Your task to perform on an android device: open app "Lyft - Rideshare, Bikes, Scooters & Transit" (install if not already installed) Image 0: 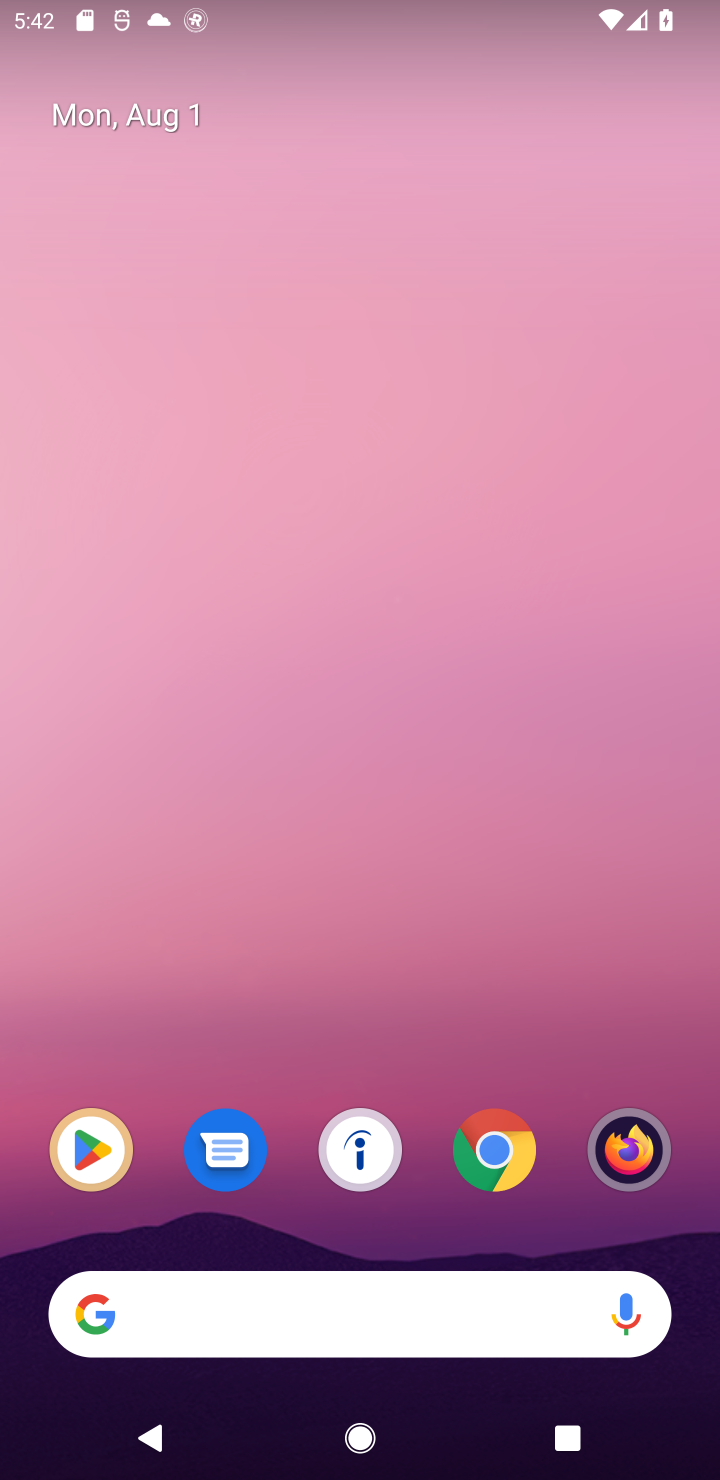
Step 0: drag from (142, 957) to (153, 214)
Your task to perform on an android device: open app "Lyft - Rideshare, Bikes, Scooters & Transit" (install if not already installed) Image 1: 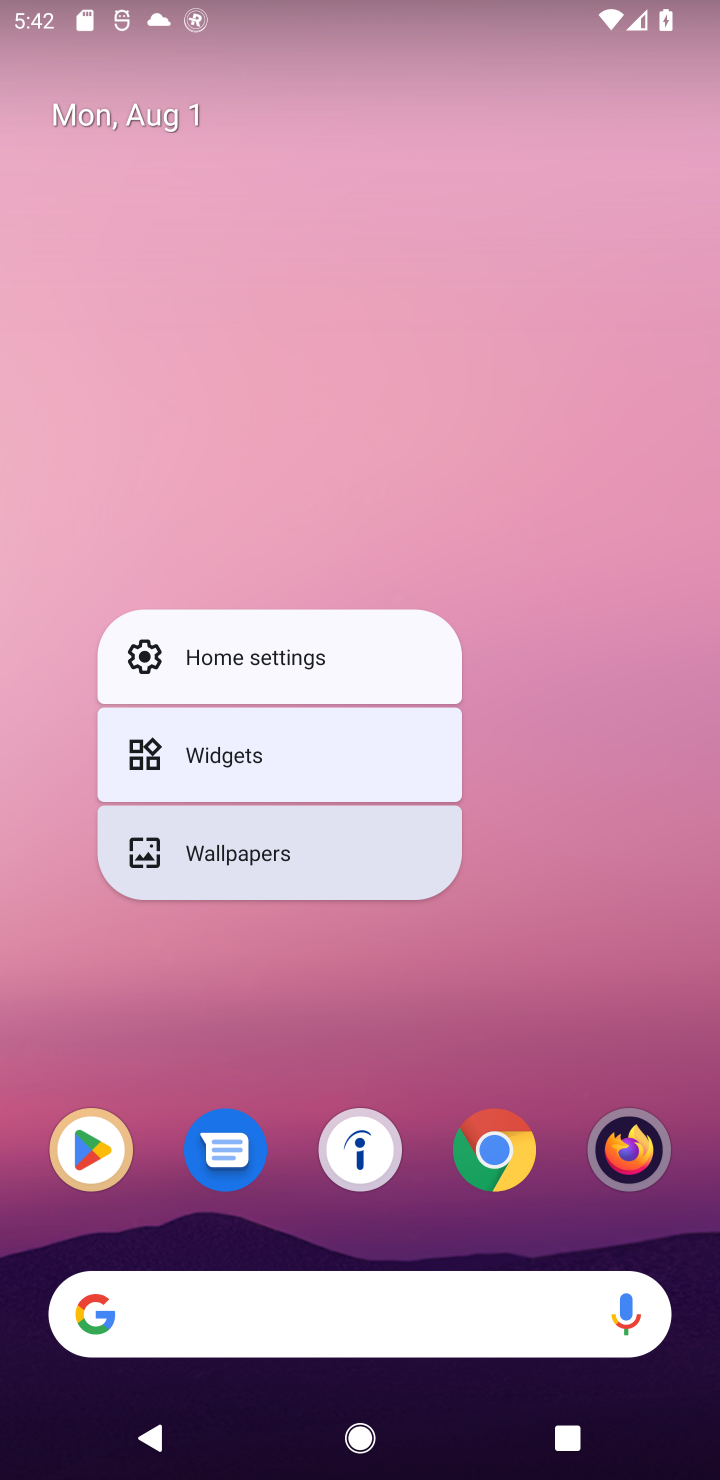
Step 1: click (279, 1247)
Your task to perform on an android device: open app "Lyft - Rideshare, Bikes, Scooters & Transit" (install if not already installed) Image 2: 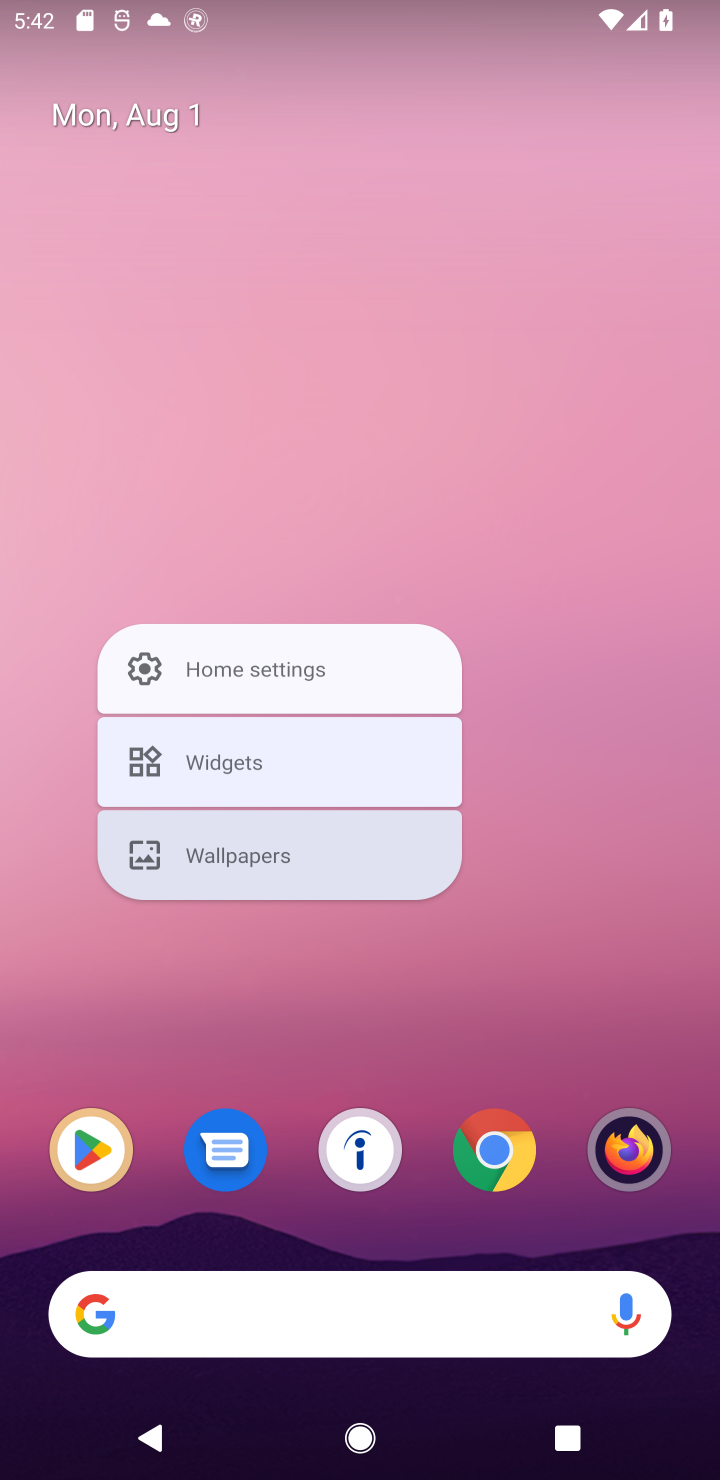
Step 2: click (610, 975)
Your task to perform on an android device: open app "Lyft - Rideshare, Bikes, Scooters & Transit" (install if not already installed) Image 3: 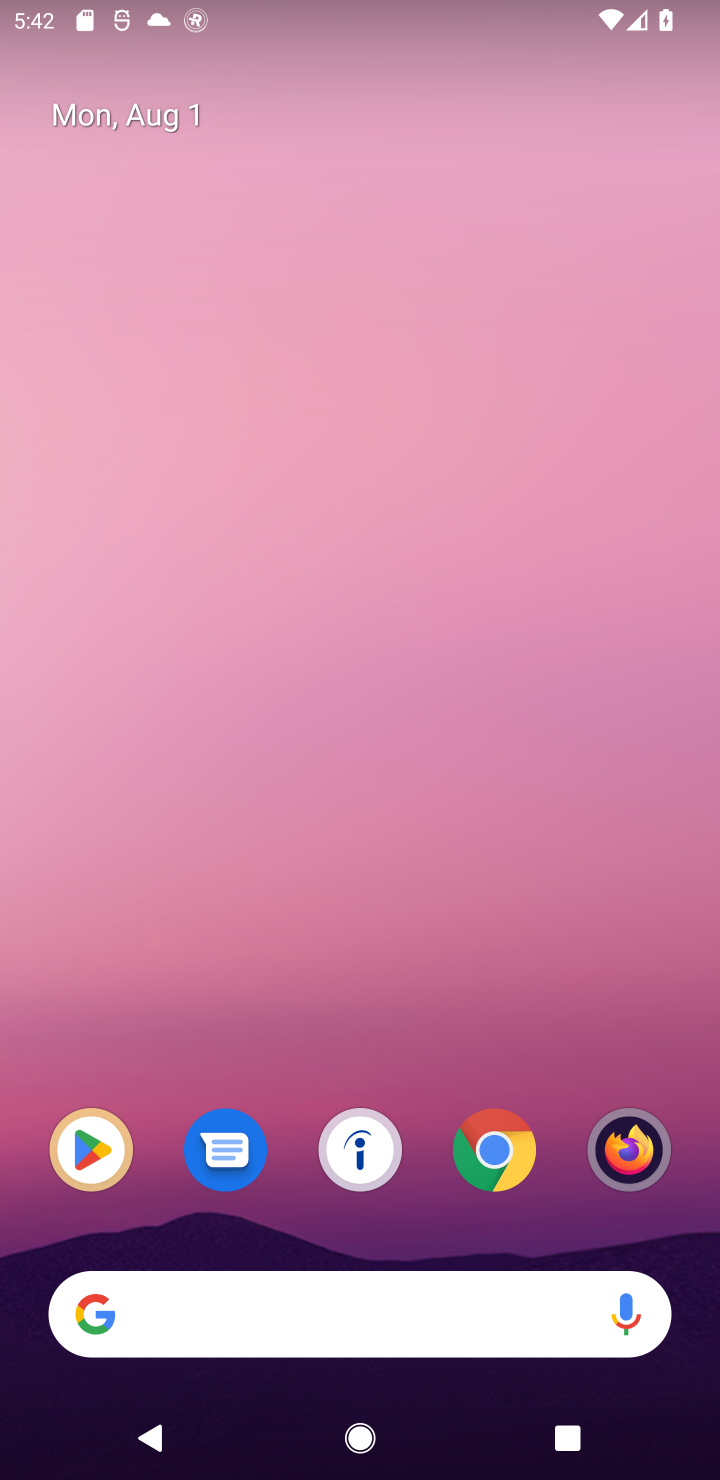
Step 3: drag from (240, 912) to (199, 35)
Your task to perform on an android device: open app "Lyft - Rideshare, Bikes, Scooters & Transit" (install if not already installed) Image 4: 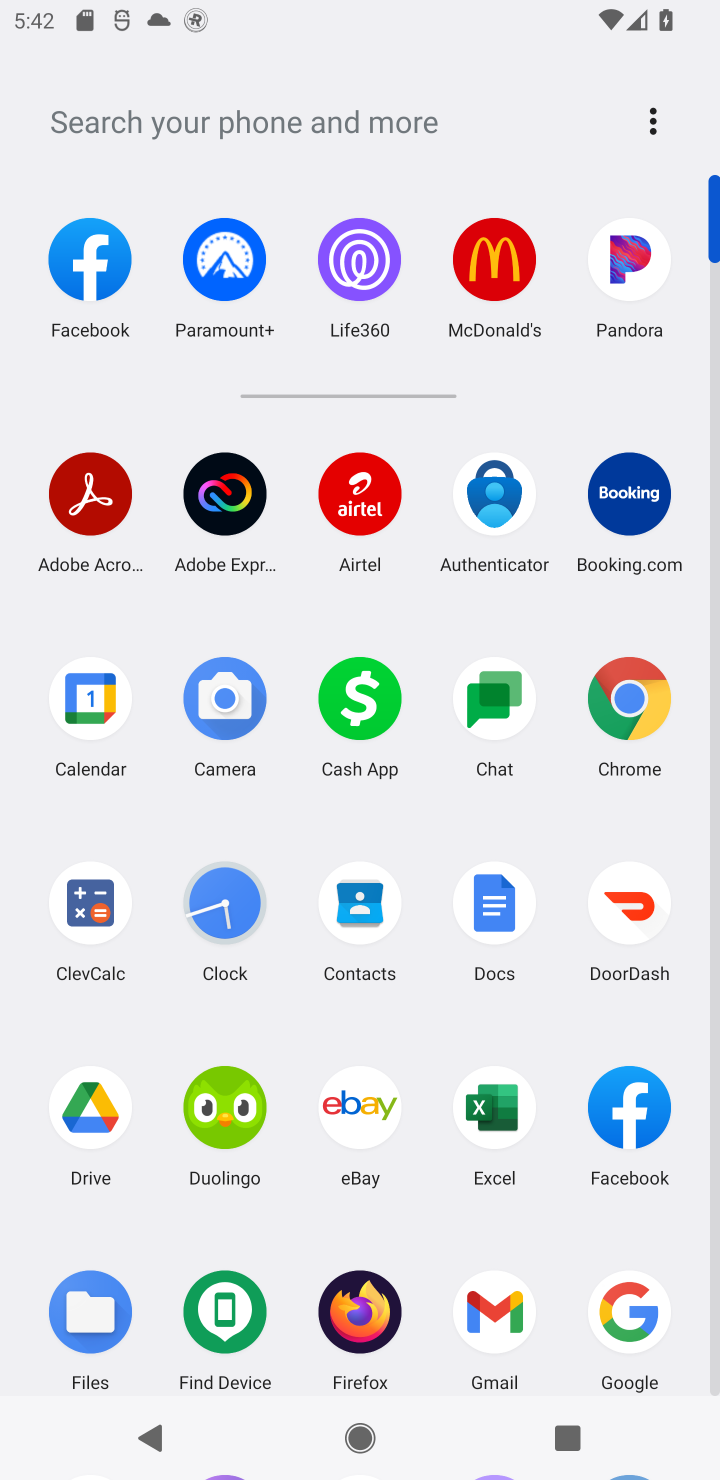
Step 4: click (268, 141)
Your task to perform on an android device: open app "Lyft - Rideshare, Bikes, Scooters & Transit" (install if not already installed) Image 5: 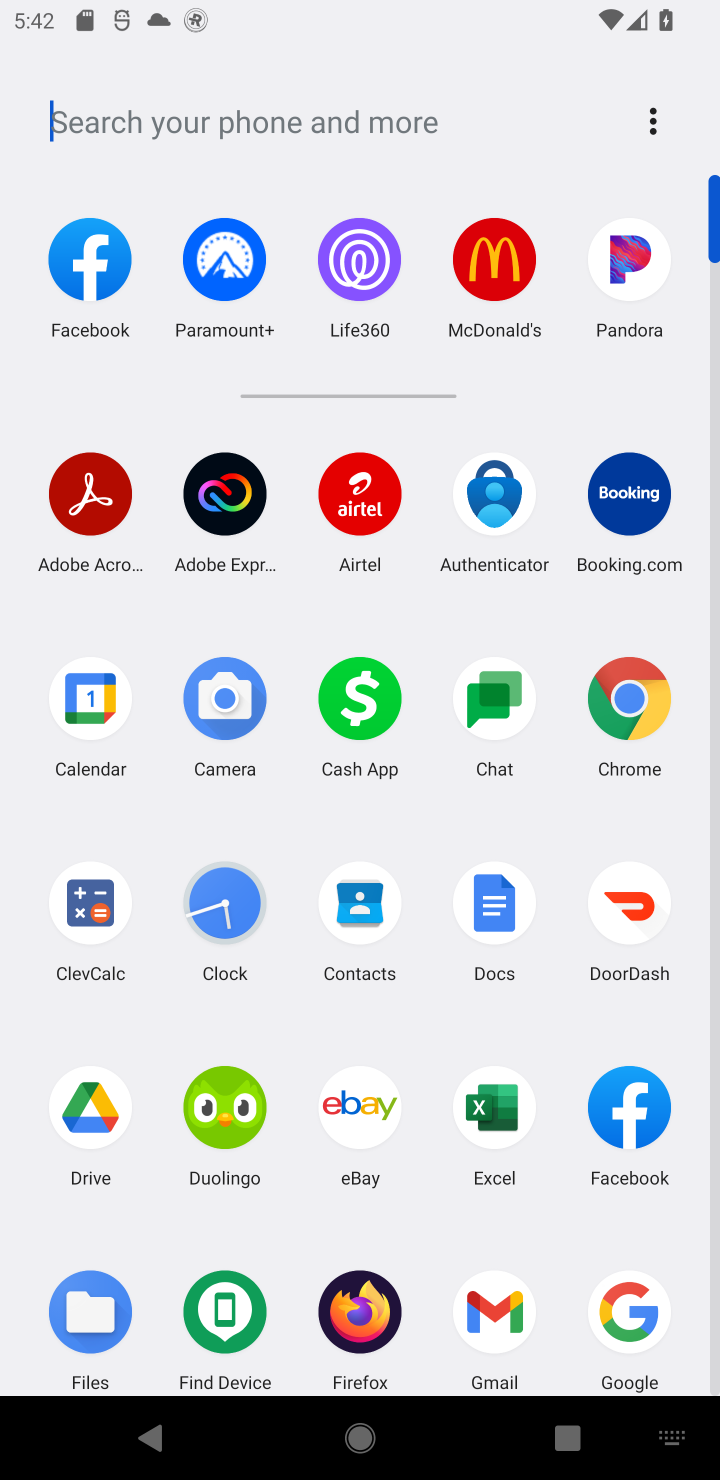
Step 5: type "lyst"
Your task to perform on an android device: open app "Lyft - Rideshare, Bikes, Scooters & Transit" (install if not already installed) Image 6: 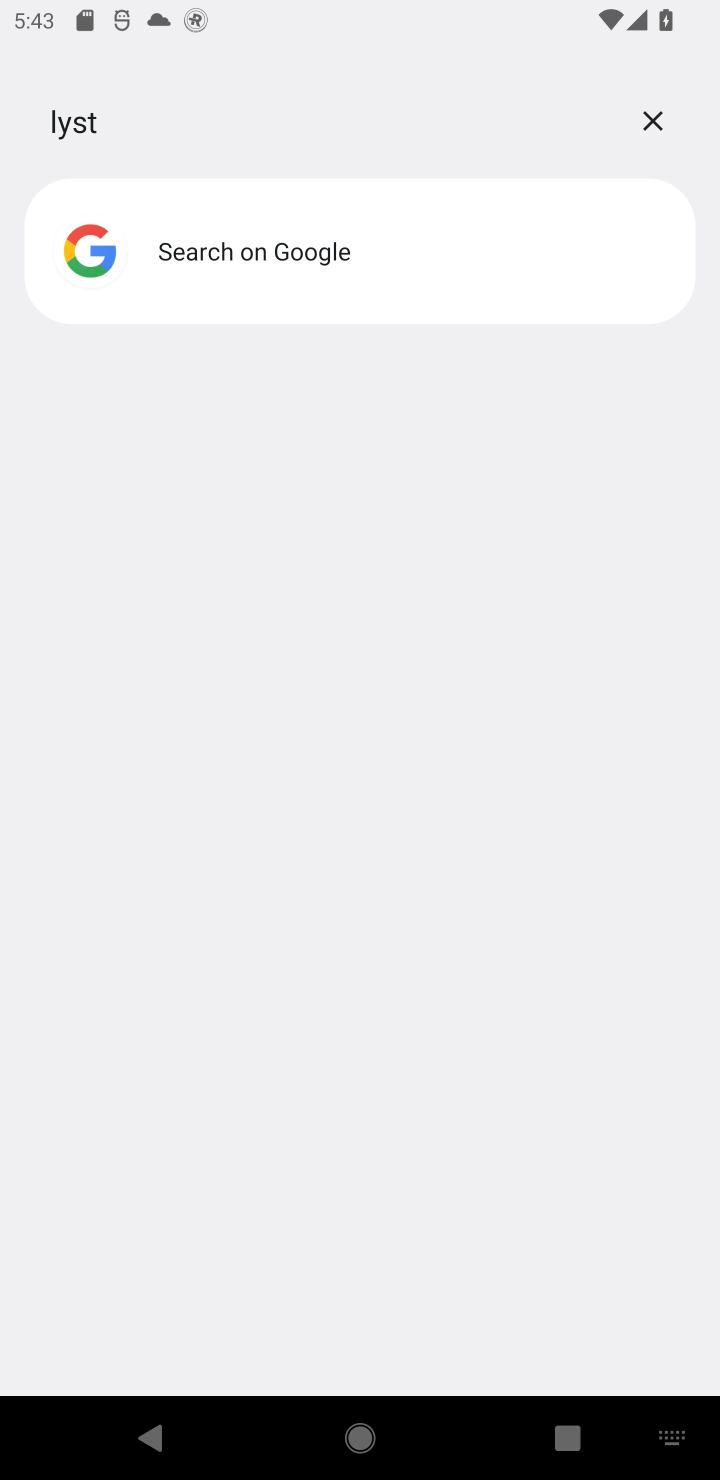
Step 6: task complete